Your task to perform on an android device: turn off priority inbox in the gmail app Image 0: 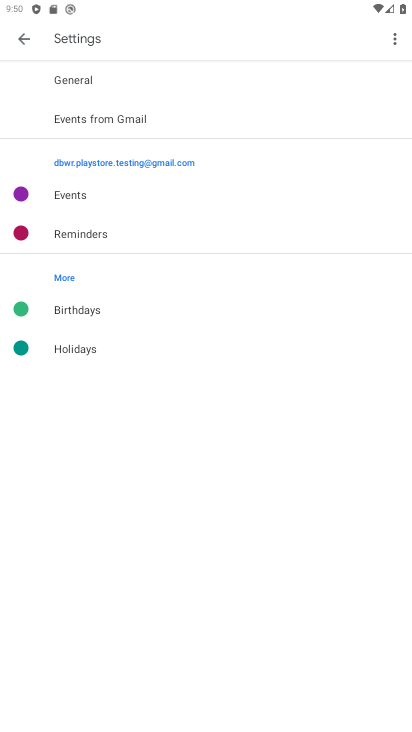
Step 0: press home button
Your task to perform on an android device: turn off priority inbox in the gmail app Image 1: 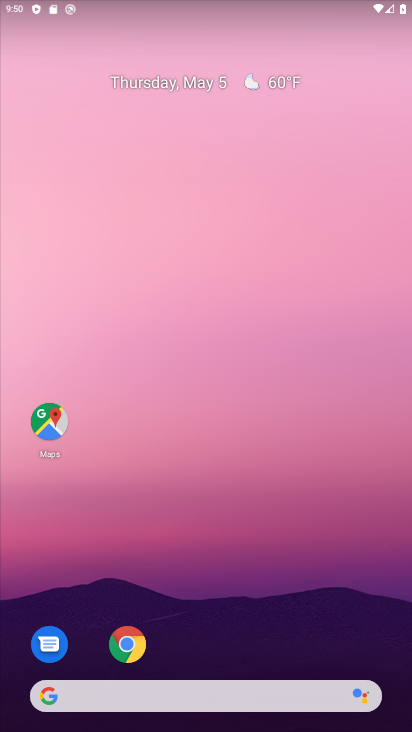
Step 1: drag from (378, 592) to (332, 6)
Your task to perform on an android device: turn off priority inbox in the gmail app Image 2: 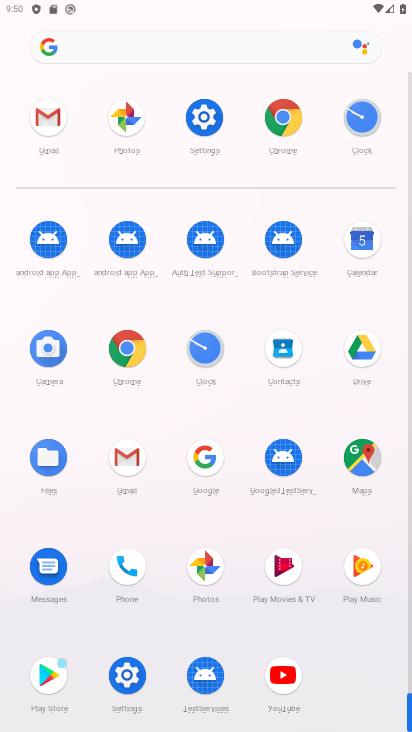
Step 2: click (39, 122)
Your task to perform on an android device: turn off priority inbox in the gmail app Image 3: 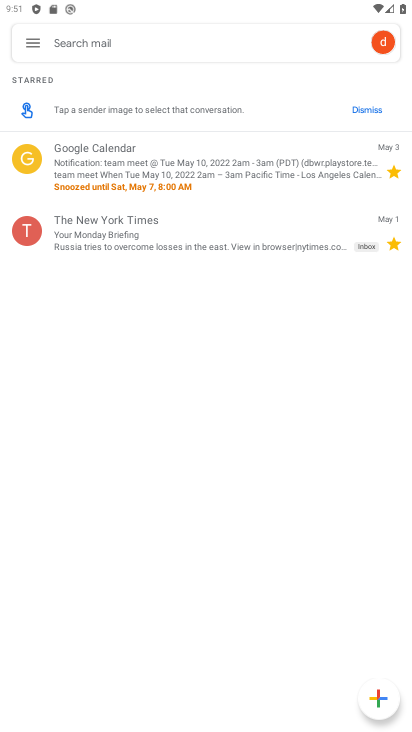
Step 3: click (19, 49)
Your task to perform on an android device: turn off priority inbox in the gmail app Image 4: 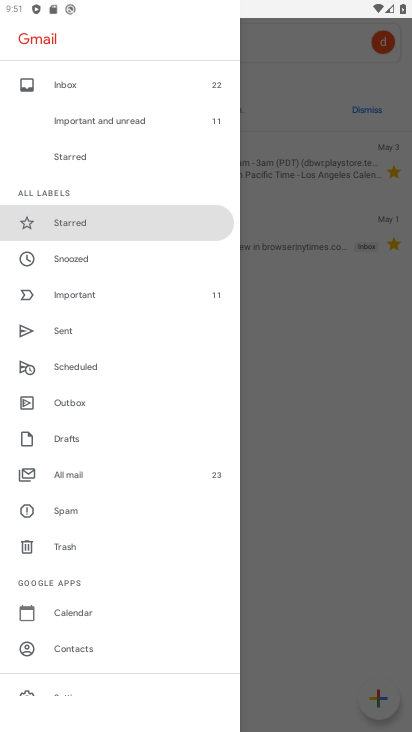
Step 4: drag from (116, 657) to (138, 267)
Your task to perform on an android device: turn off priority inbox in the gmail app Image 5: 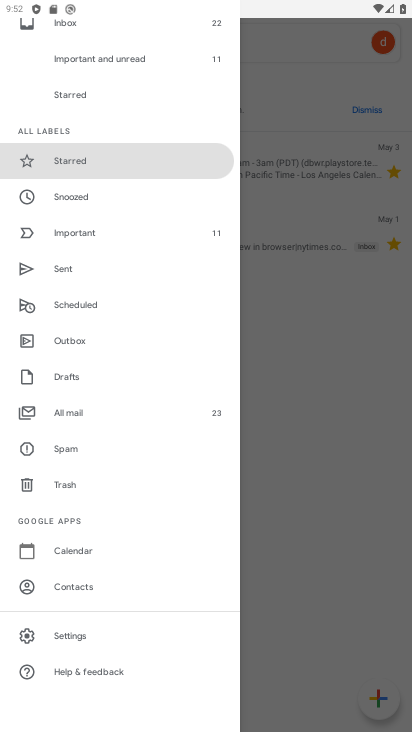
Step 5: click (94, 635)
Your task to perform on an android device: turn off priority inbox in the gmail app Image 6: 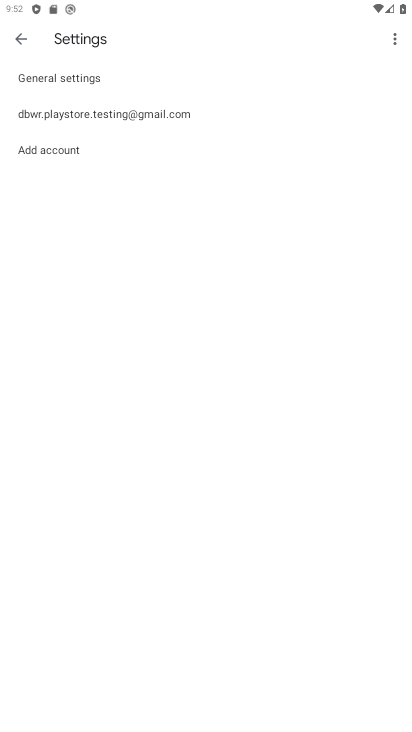
Step 6: click (178, 118)
Your task to perform on an android device: turn off priority inbox in the gmail app Image 7: 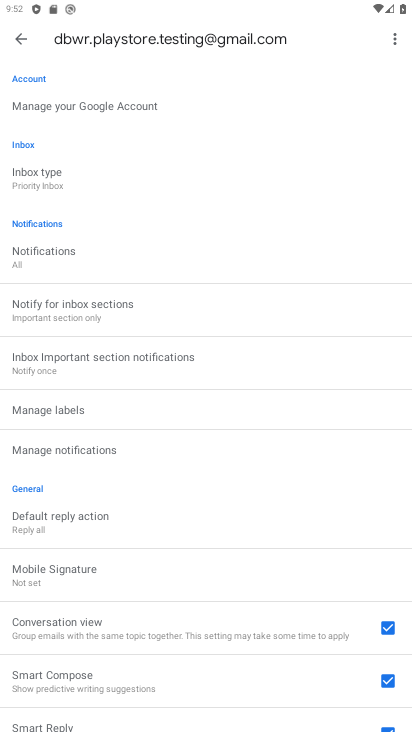
Step 7: drag from (166, 634) to (216, 321)
Your task to perform on an android device: turn off priority inbox in the gmail app Image 8: 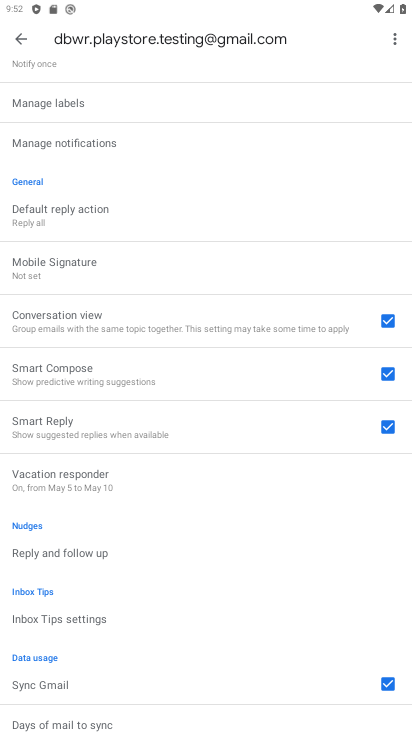
Step 8: drag from (115, 673) to (166, 291)
Your task to perform on an android device: turn off priority inbox in the gmail app Image 9: 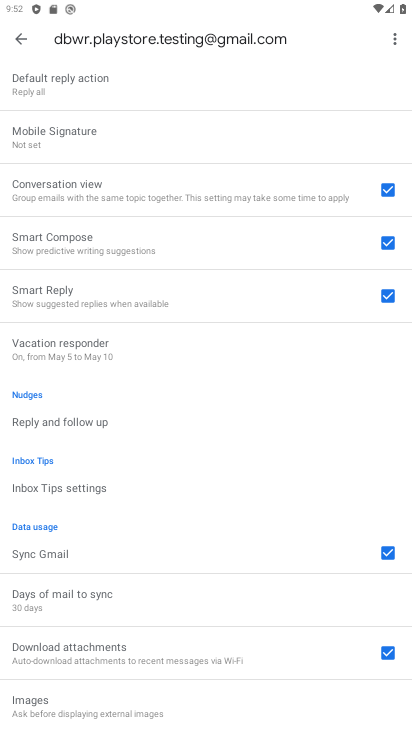
Step 9: drag from (187, 192) to (177, 647)
Your task to perform on an android device: turn off priority inbox in the gmail app Image 10: 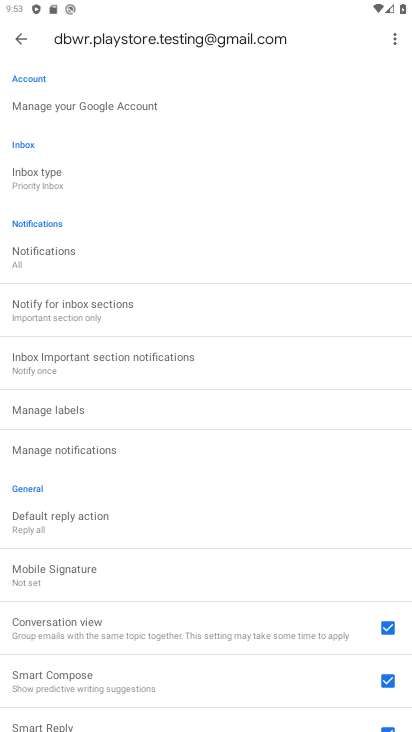
Step 10: click (61, 174)
Your task to perform on an android device: turn off priority inbox in the gmail app Image 11: 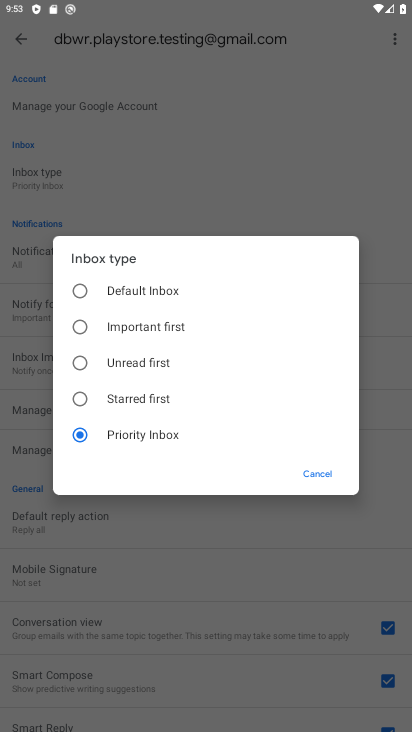
Step 11: click (150, 292)
Your task to perform on an android device: turn off priority inbox in the gmail app Image 12: 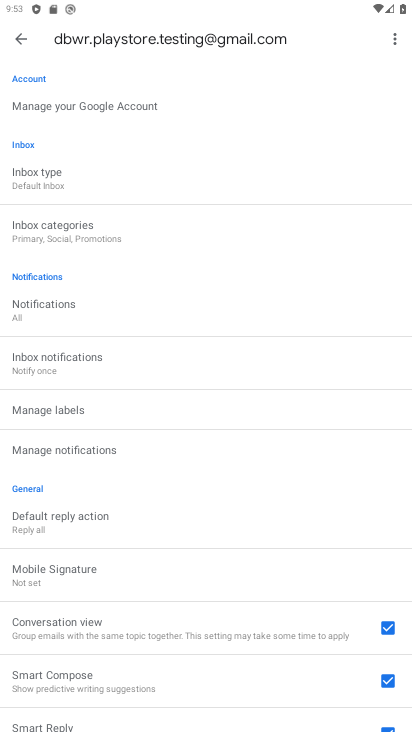
Step 12: task complete